Your task to perform on an android device: When is my next appointment? Image 0: 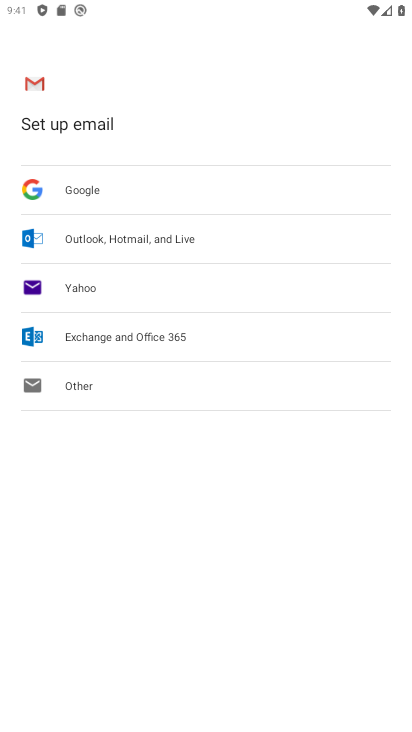
Step 0: press home button
Your task to perform on an android device: When is my next appointment? Image 1: 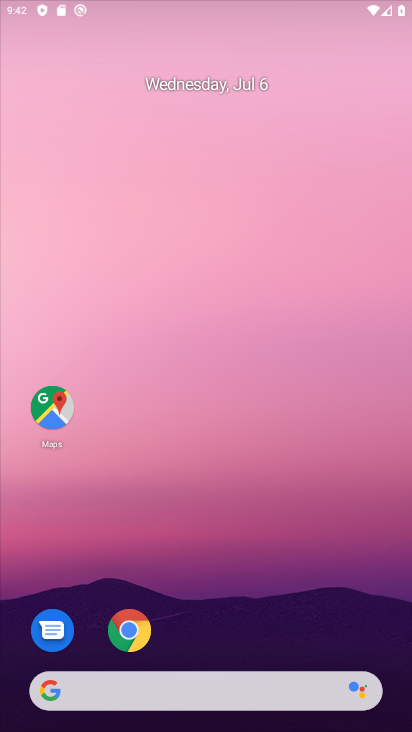
Step 1: drag from (283, 558) to (214, 53)
Your task to perform on an android device: When is my next appointment? Image 2: 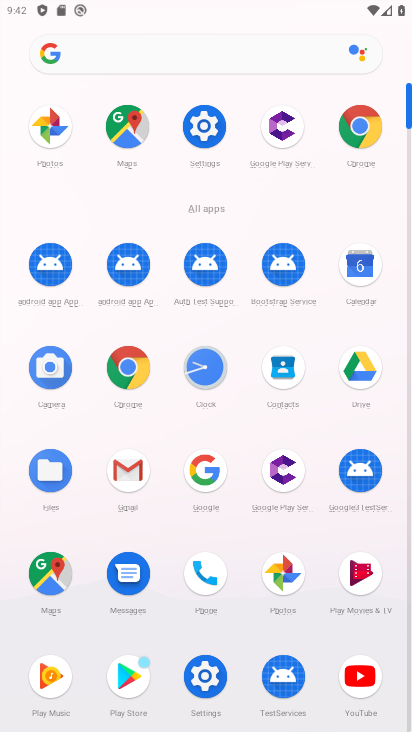
Step 2: click (348, 264)
Your task to perform on an android device: When is my next appointment? Image 3: 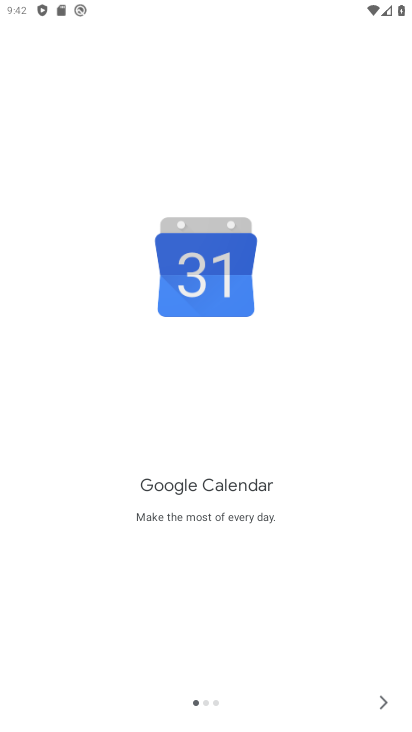
Step 3: click (387, 702)
Your task to perform on an android device: When is my next appointment? Image 4: 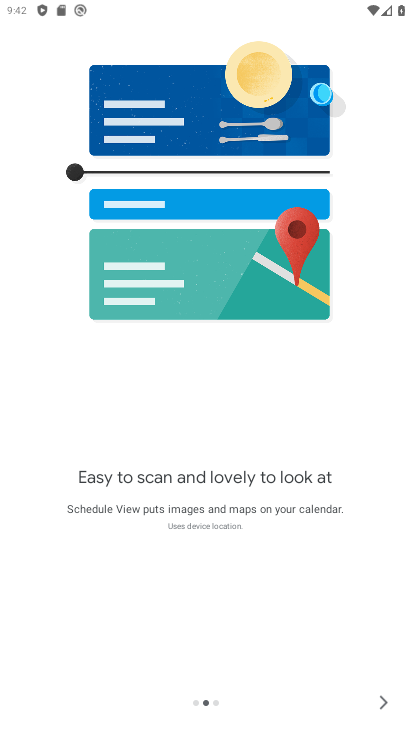
Step 4: click (377, 697)
Your task to perform on an android device: When is my next appointment? Image 5: 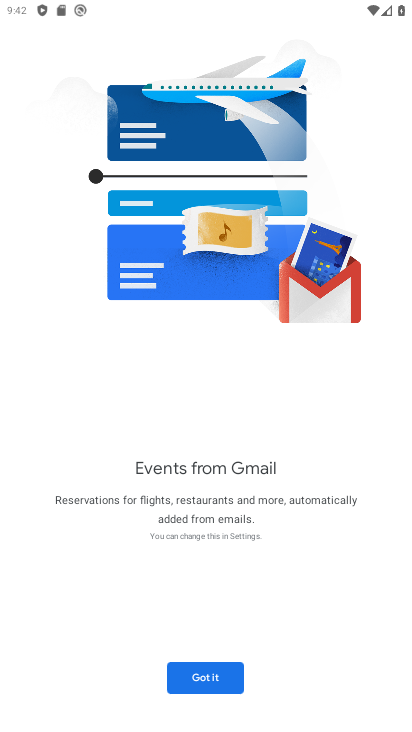
Step 5: click (377, 697)
Your task to perform on an android device: When is my next appointment? Image 6: 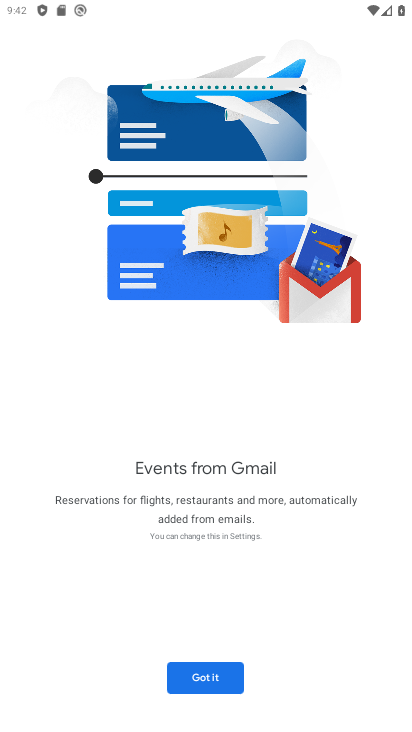
Step 6: click (226, 684)
Your task to perform on an android device: When is my next appointment? Image 7: 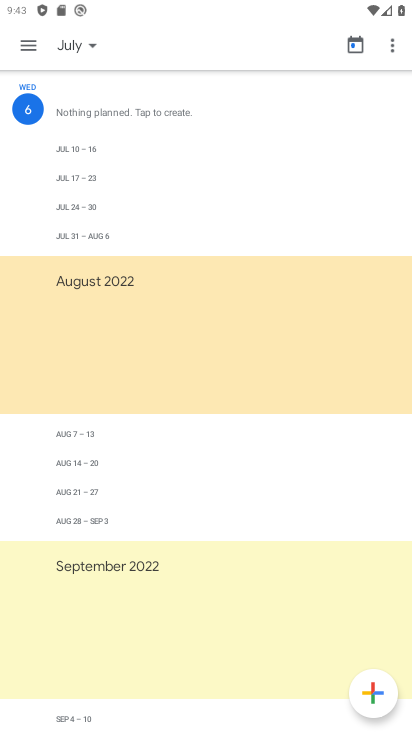
Step 7: drag from (103, 547) to (142, 573)
Your task to perform on an android device: When is my next appointment? Image 8: 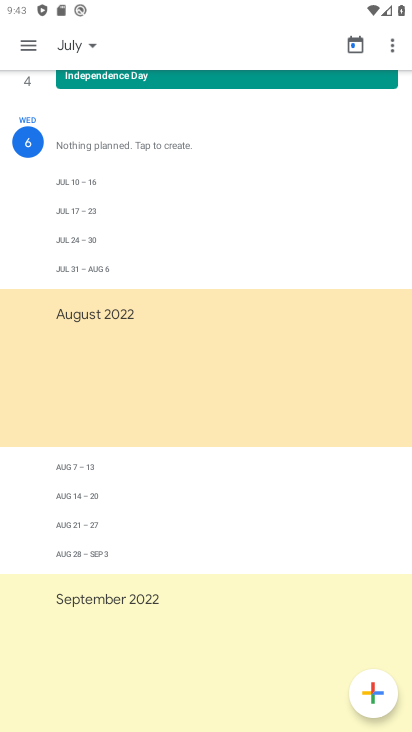
Step 8: click (36, 42)
Your task to perform on an android device: When is my next appointment? Image 9: 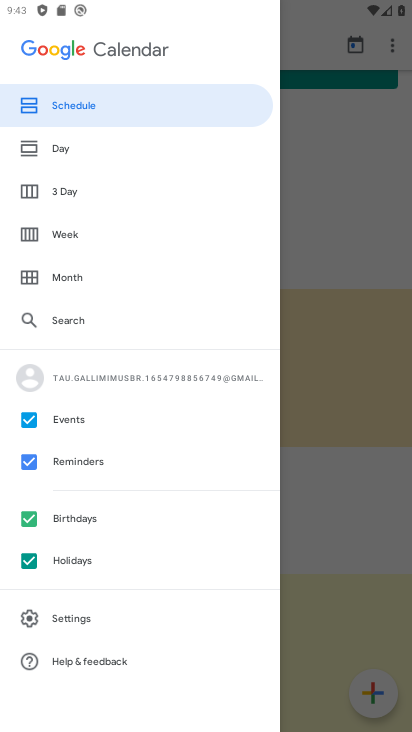
Step 9: click (91, 110)
Your task to perform on an android device: When is my next appointment? Image 10: 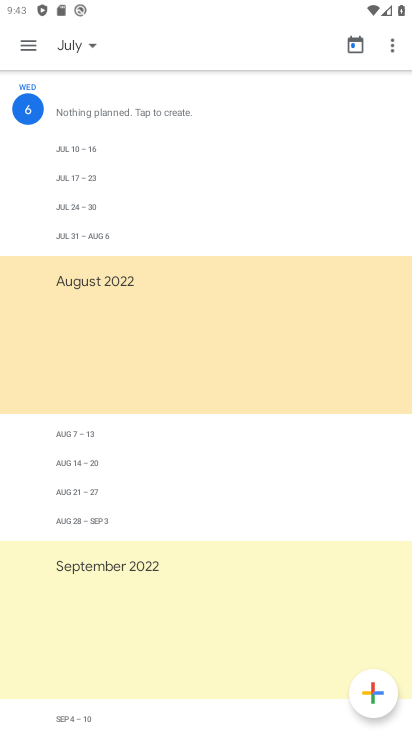
Step 10: click (34, 33)
Your task to perform on an android device: When is my next appointment? Image 11: 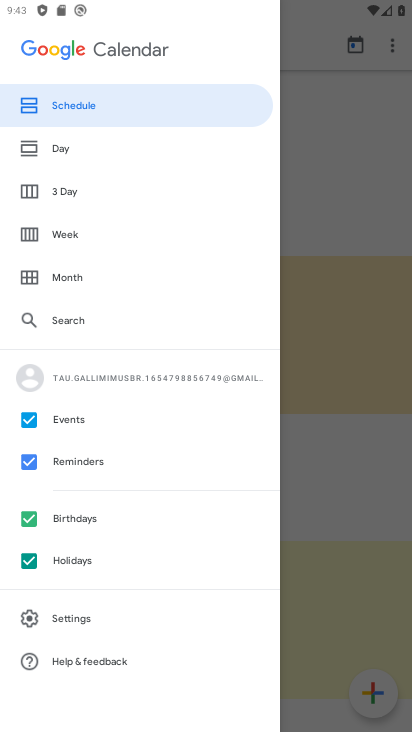
Step 11: click (63, 426)
Your task to perform on an android device: When is my next appointment? Image 12: 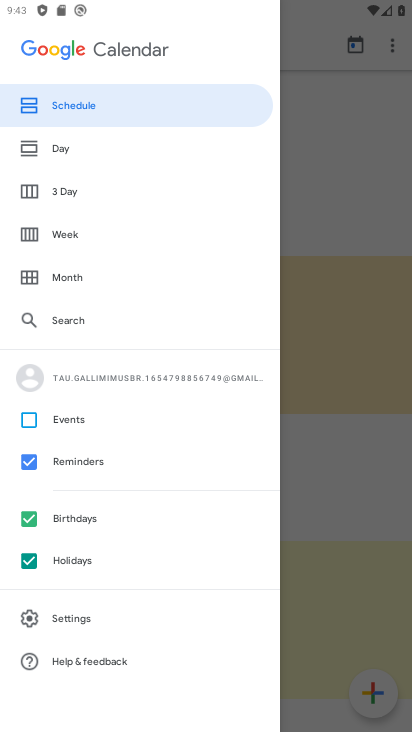
Step 12: click (63, 411)
Your task to perform on an android device: When is my next appointment? Image 13: 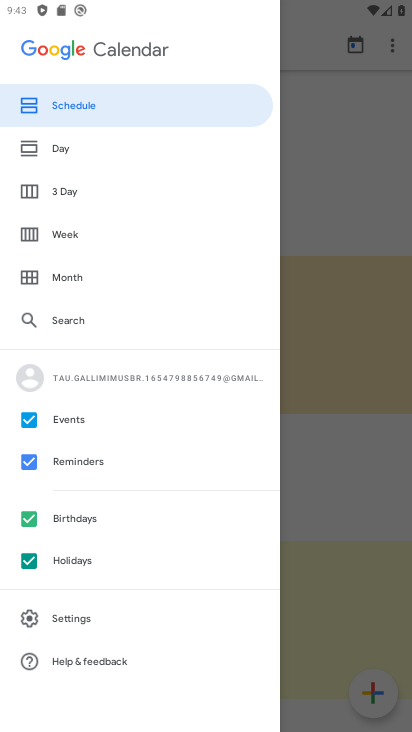
Step 13: click (309, 331)
Your task to perform on an android device: When is my next appointment? Image 14: 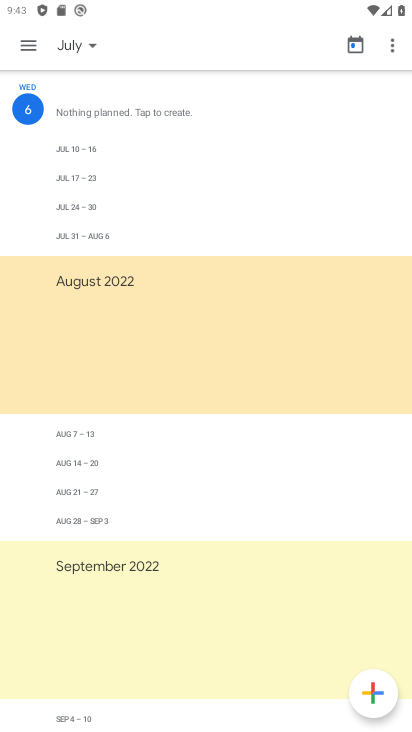
Step 14: task complete